Your task to perform on an android device: Open Youtube and go to "Your channel" Image 0: 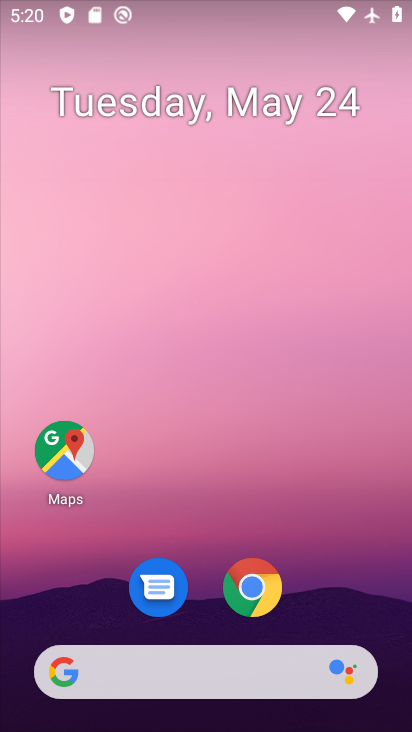
Step 0: drag from (334, 529) to (190, 68)
Your task to perform on an android device: Open Youtube and go to "Your channel" Image 1: 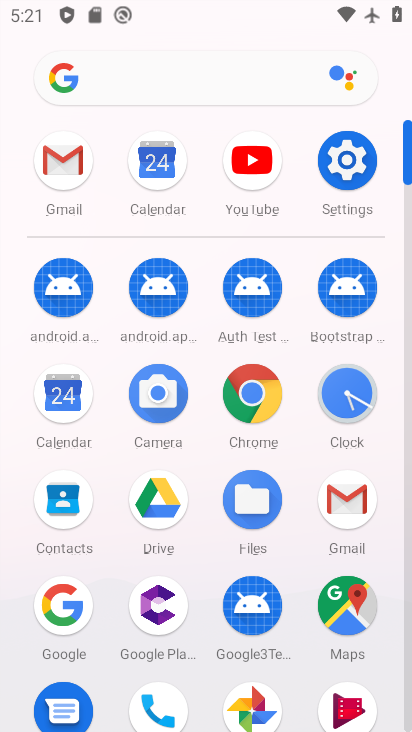
Step 1: drag from (303, 674) to (260, 171)
Your task to perform on an android device: Open Youtube and go to "Your channel" Image 2: 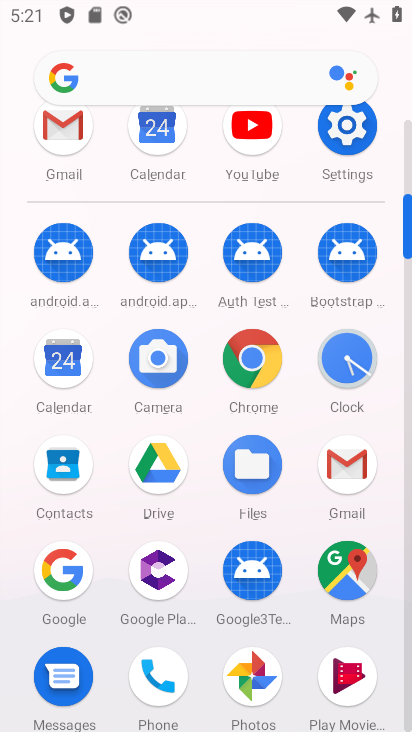
Step 2: click (256, 132)
Your task to perform on an android device: Open Youtube and go to "Your channel" Image 3: 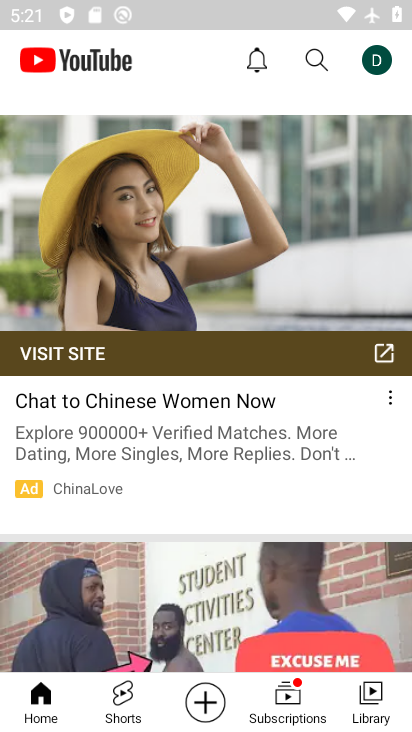
Step 3: click (385, 62)
Your task to perform on an android device: Open Youtube and go to "Your channel" Image 4: 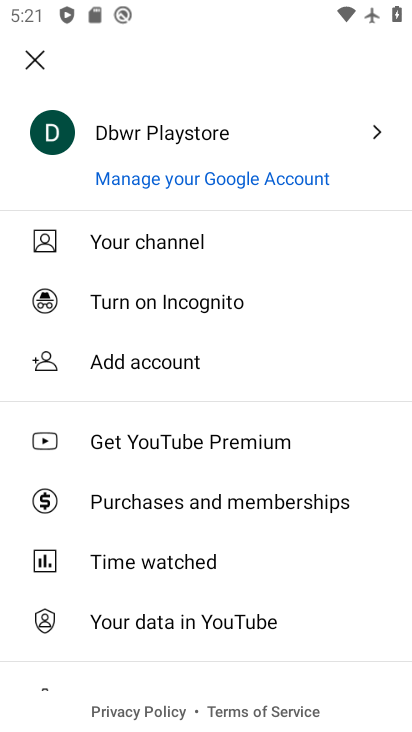
Step 4: click (174, 241)
Your task to perform on an android device: Open Youtube and go to "Your channel" Image 5: 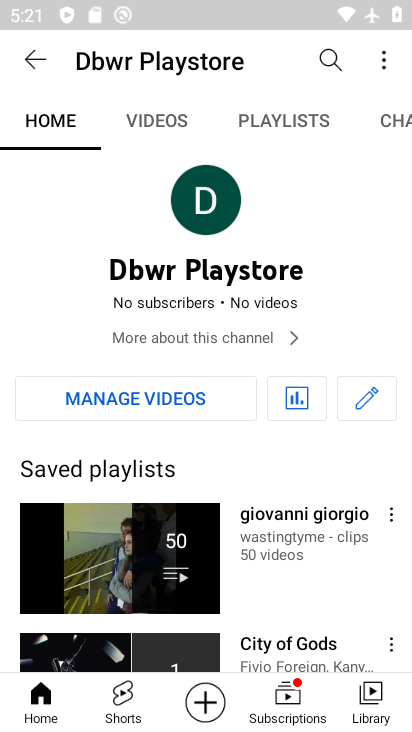
Step 5: task complete